Your task to perform on an android device: Go to Google maps Image 0: 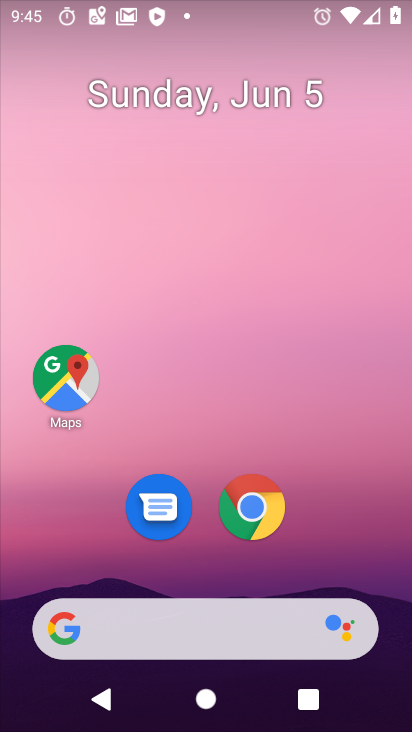
Step 0: drag from (254, 655) to (299, 163)
Your task to perform on an android device: Go to Google maps Image 1: 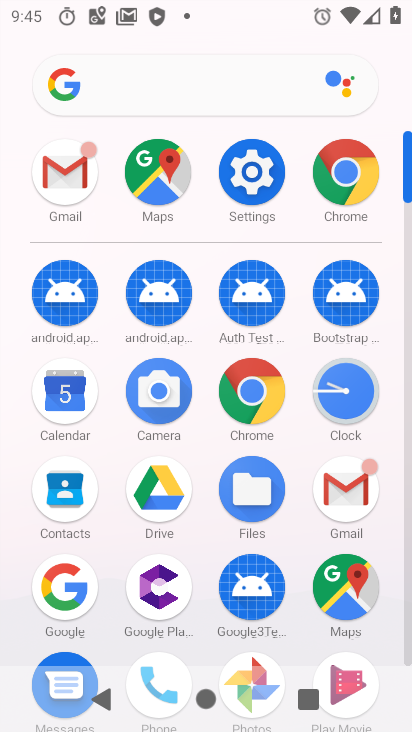
Step 1: click (144, 186)
Your task to perform on an android device: Go to Google maps Image 2: 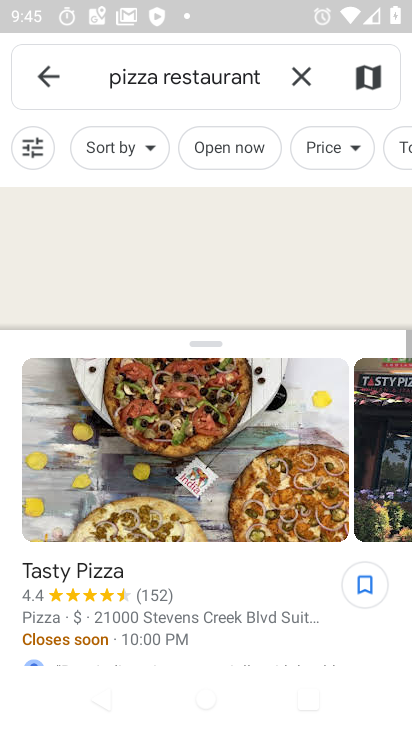
Step 2: click (297, 62)
Your task to perform on an android device: Go to Google maps Image 3: 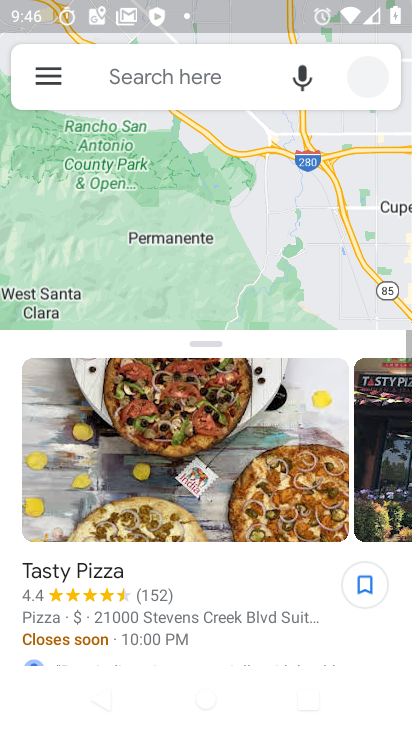
Step 3: click (162, 76)
Your task to perform on an android device: Go to Google maps Image 4: 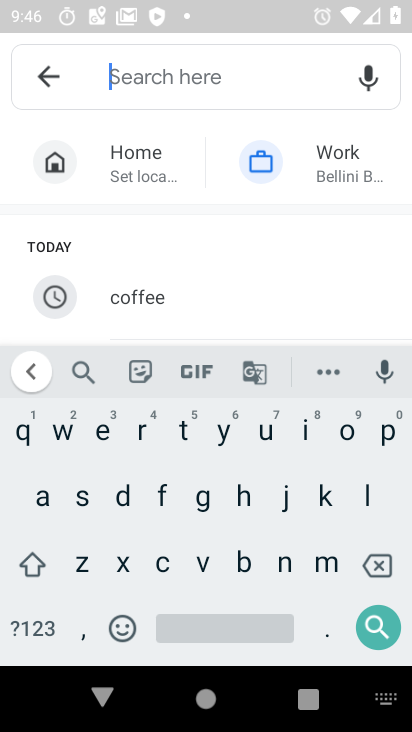
Step 4: click (43, 83)
Your task to perform on an android device: Go to Google maps Image 5: 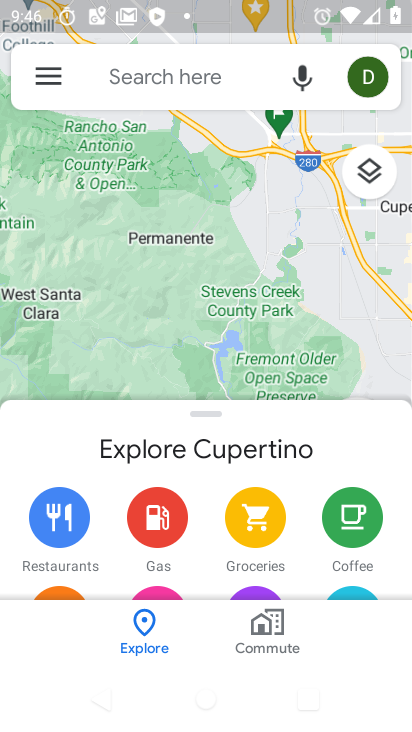
Step 5: click (277, 346)
Your task to perform on an android device: Go to Google maps Image 6: 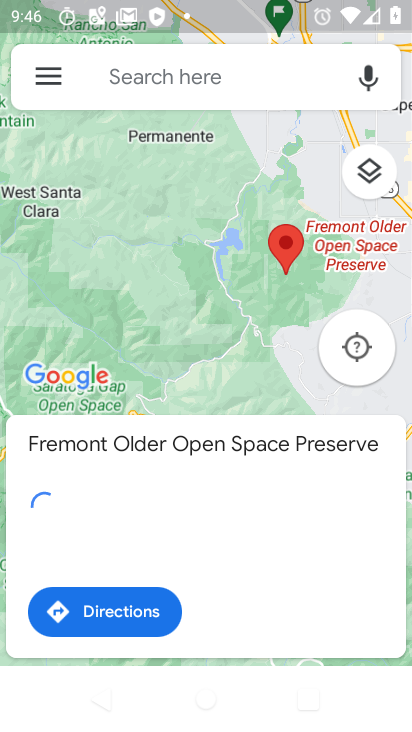
Step 6: click (374, 341)
Your task to perform on an android device: Go to Google maps Image 7: 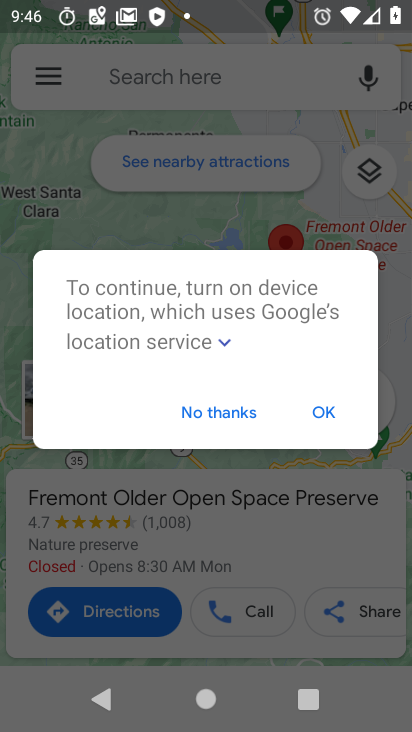
Step 7: click (196, 416)
Your task to perform on an android device: Go to Google maps Image 8: 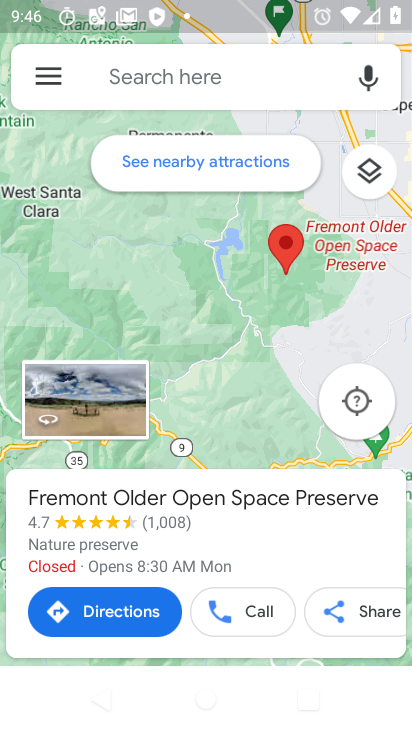
Step 8: task complete